Your task to perform on an android device: Go to accessibility settings Image 0: 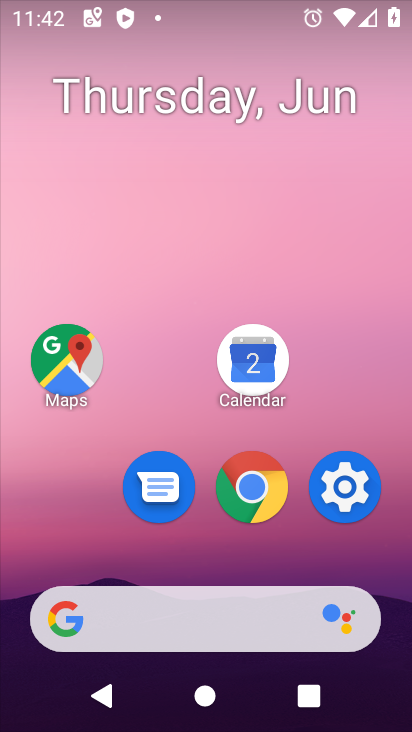
Step 0: drag from (276, 651) to (285, 0)
Your task to perform on an android device: Go to accessibility settings Image 1: 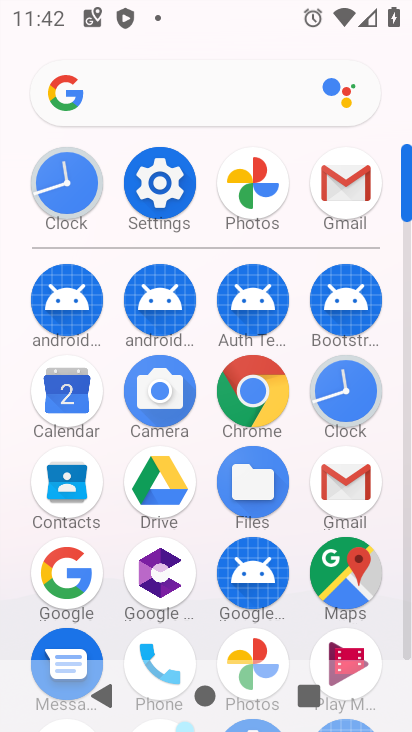
Step 1: click (150, 186)
Your task to perform on an android device: Go to accessibility settings Image 2: 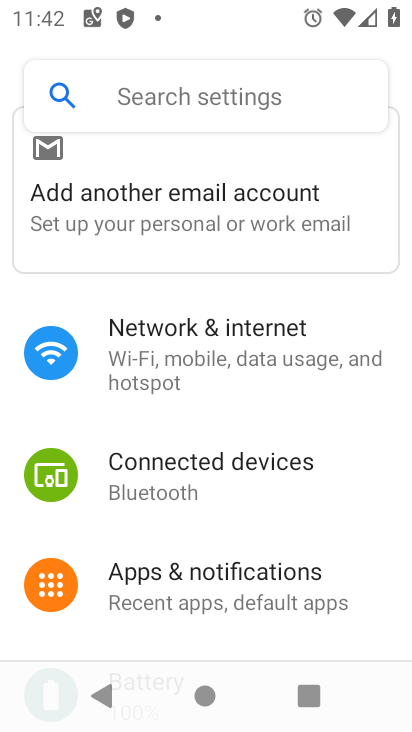
Step 2: click (143, 100)
Your task to perform on an android device: Go to accessibility settings Image 3: 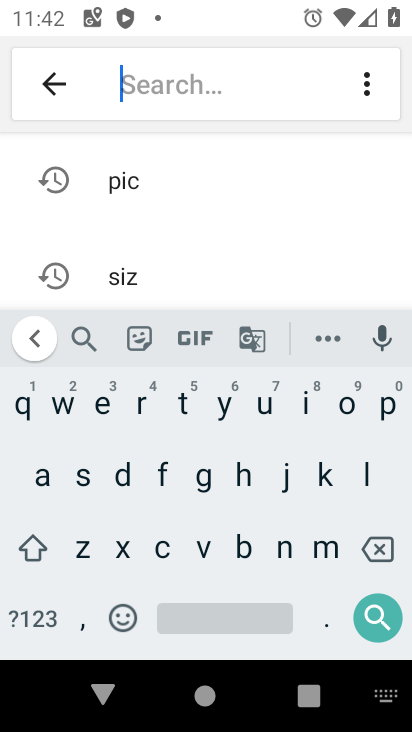
Step 3: click (36, 478)
Your task to perform on an android device: Go to accessibility settings Image 4: 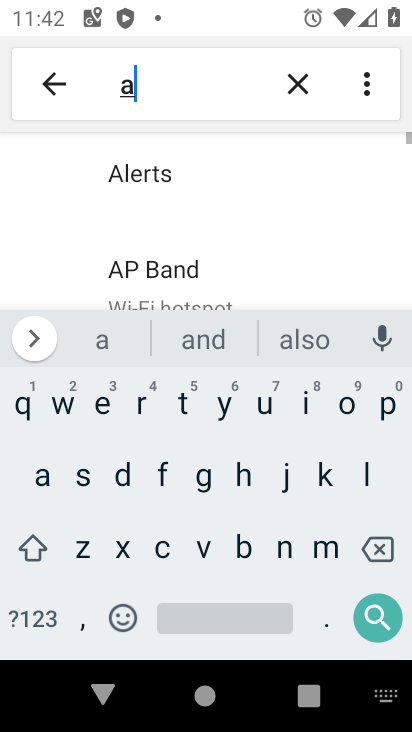
Step 4: click (164, 550)
Your task to perform on an android device: Go to accessibility settings Image 5: 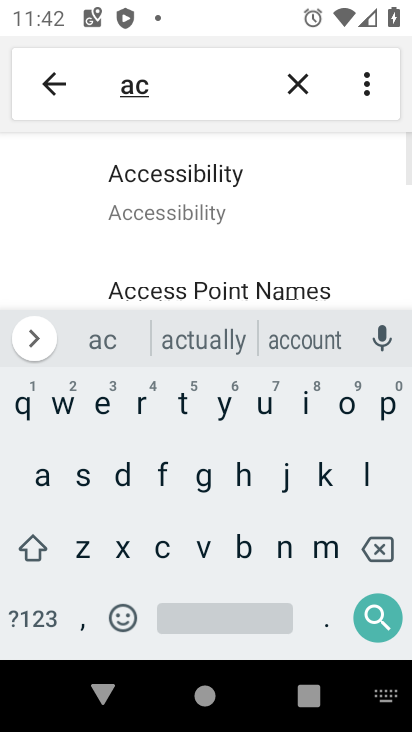
Step 5: click (218, 198)
Your task to perform on an android device: Go to accessibility settings Image 6: 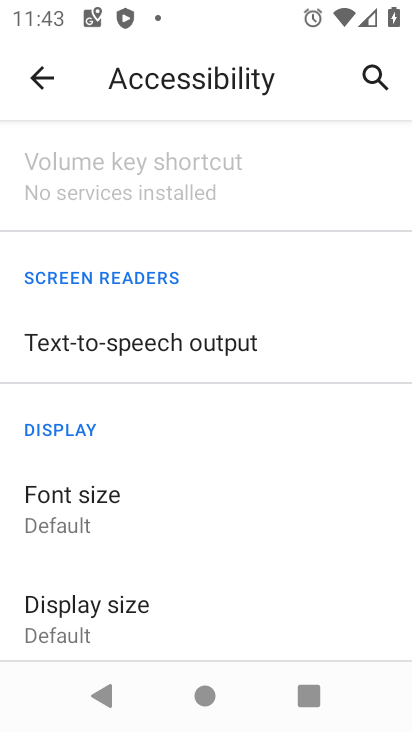
Step 6: task complete